Your task to perform on an android device: Open eBay Image 0: 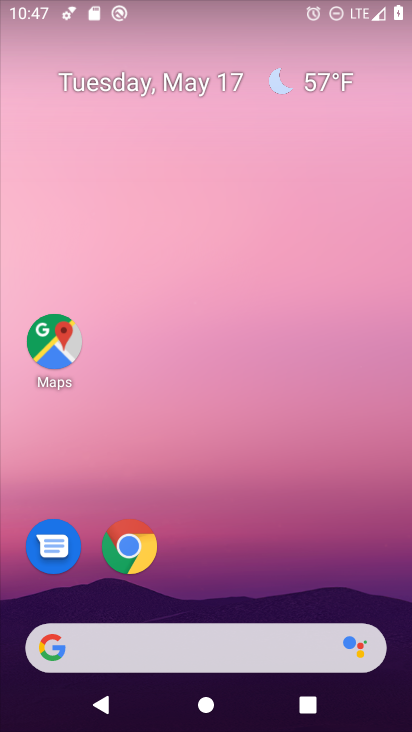
Step 0: click (136, 550)
Your task to perform on an android device: Open eBay Image 1: 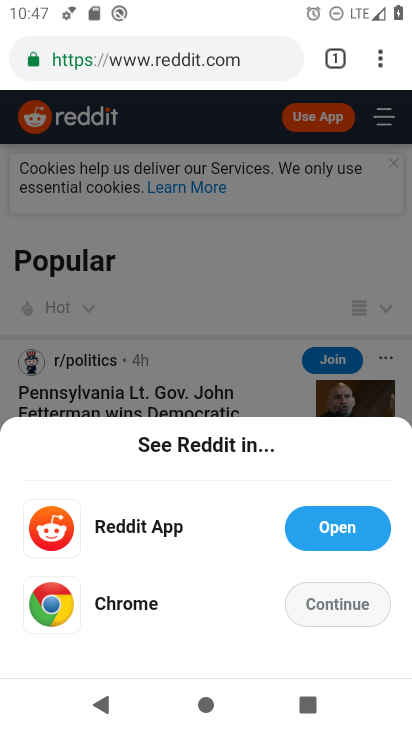
Step 1: click (137, 68)
Your task to perform on an android device: Open eBay Image 2: 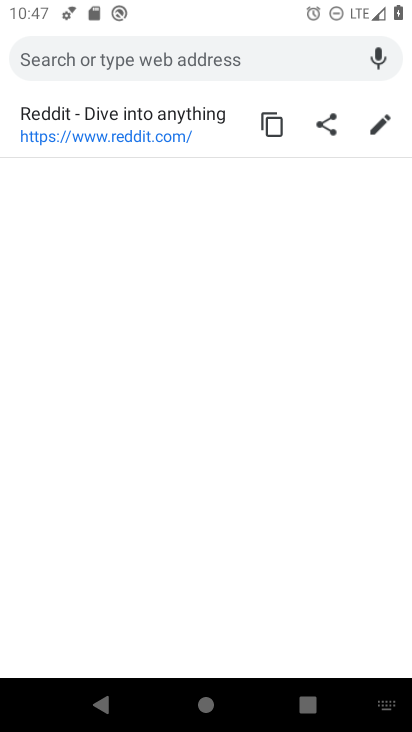
Step 2: type "ebay"
Your task to perform on an android device: Open eBay Image 3: 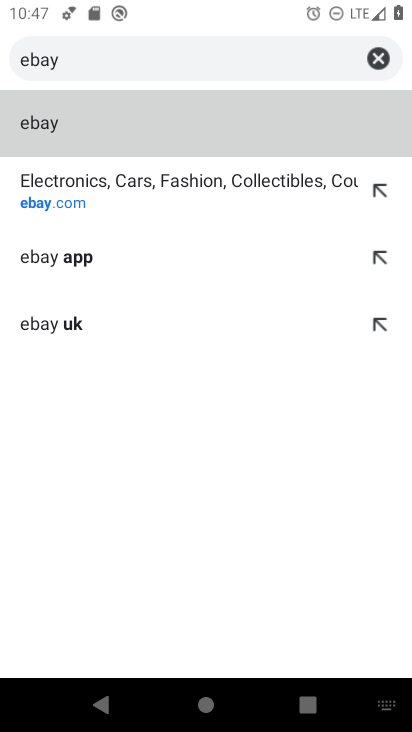
Step 3: click (47, 194)
Your task to perform on an android device: Open eBay Image 4: 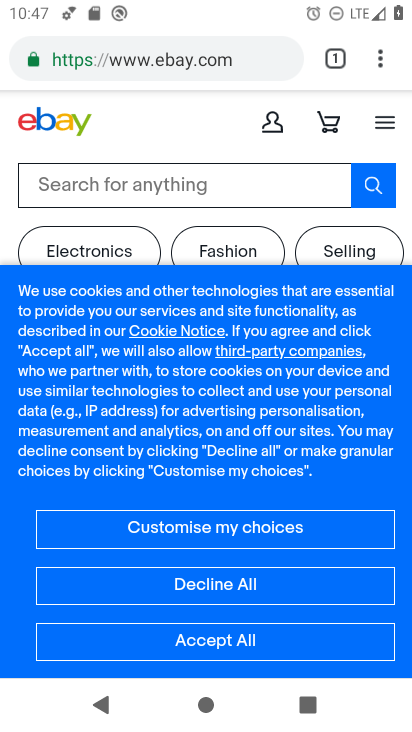
Step 4: task complete